Your task to perform on an android device: Open the phone app and click the voicemail tab. Image 0: 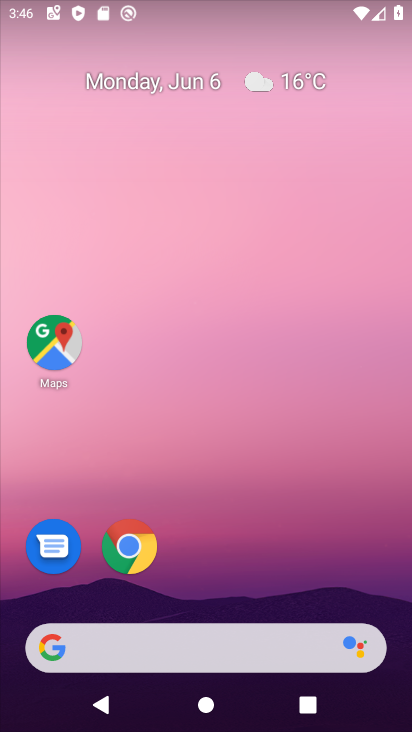
Step 0: drag from (265, 575) to (263, 64)
Your task to perform on an android device: Open the phone app and click the voicemail tab. Image 1: 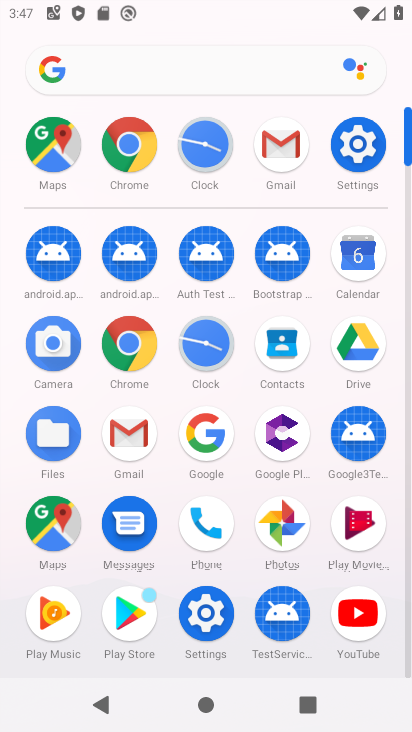
Step 1: click (215, 518)
Your task to perform on an android device: Open the phone app and click the voicemail tab. Image 2: 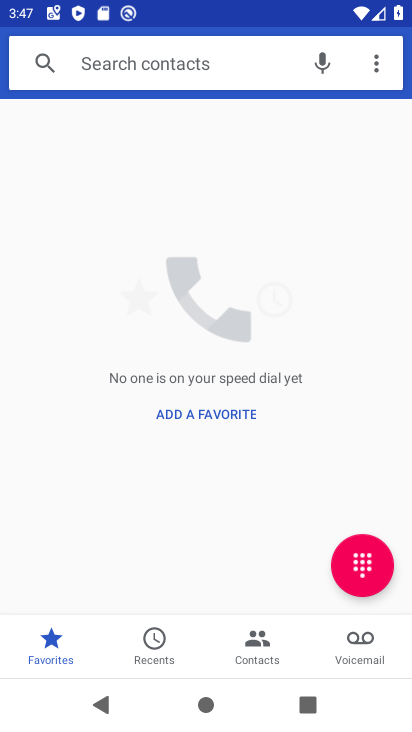
Step 2: click (351, 663)
Your task to perform on an android device: Open the phone app and click the voicemail tab. Image 3: 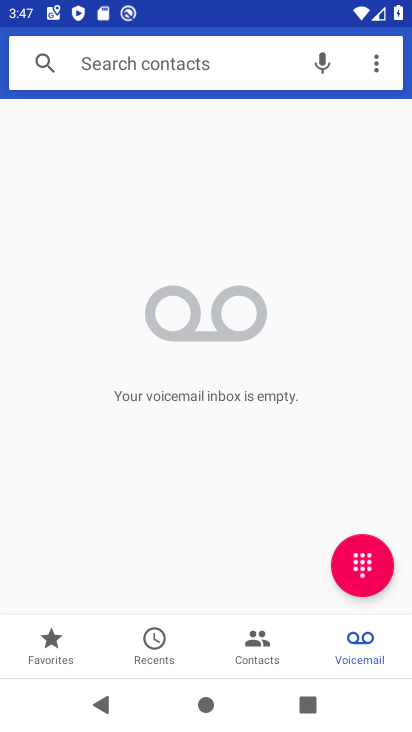
Step 3: task complete